Your task to perform on an android device: Open Yahoo.com Image 0: 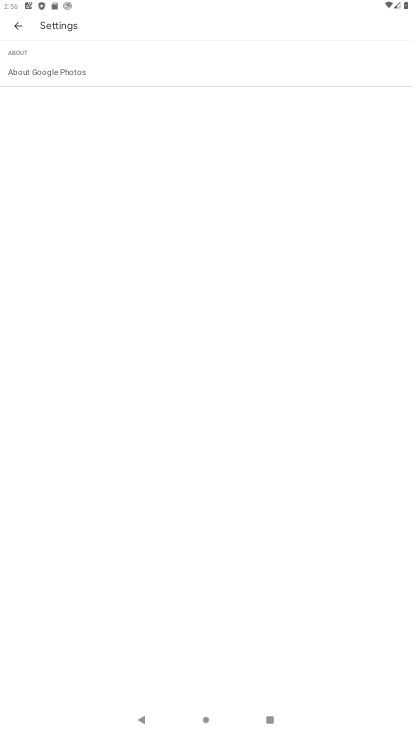
Step 0: press home button
Your task to perform on an android device: Open Yahoo.com Image 1: 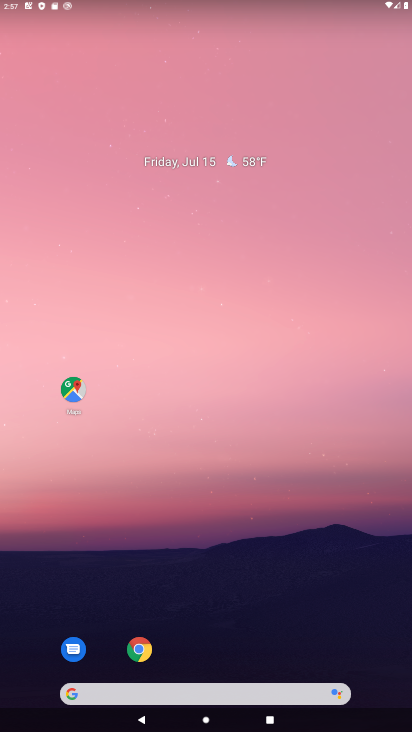
Step 1: click (138, 648)
Your task to perform on an android device: Open Yahoo.com Image 2: 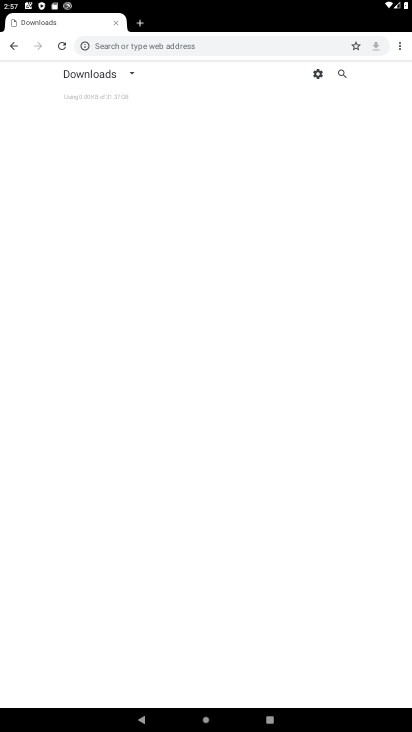
Step 2: click (397, 49)
Your task to perform on an android device: Open Yahoo.com Image 3: 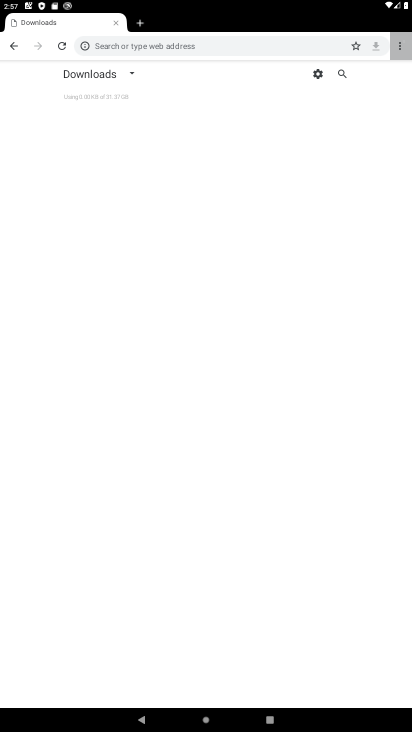
Step 3: click (397, 49)
Your task to perform on an android device: Open Yahoo.com Image 4: 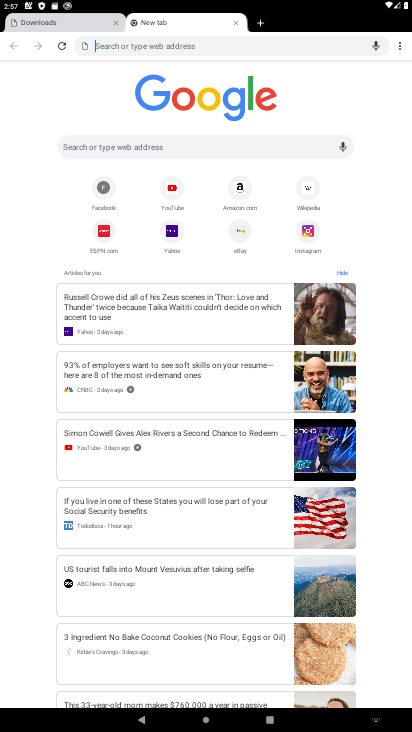
Step 4: click (171, 239)
Your task to perform on an android device: Open Yahoo.com Image 5: 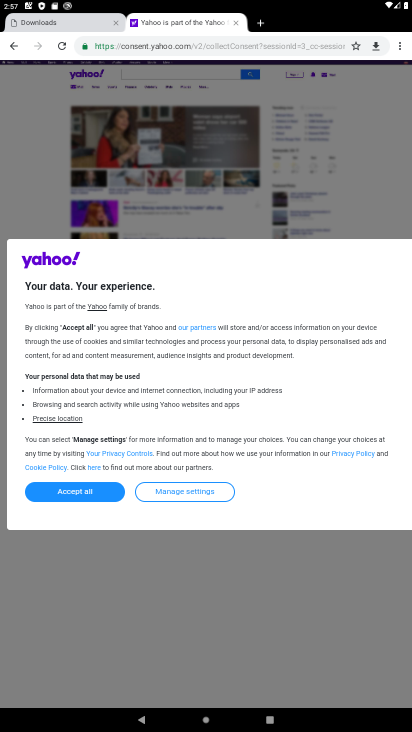
Step 5: click (75, 494)
Your task to perform on an android device: Open Yahoo.com Image 6: 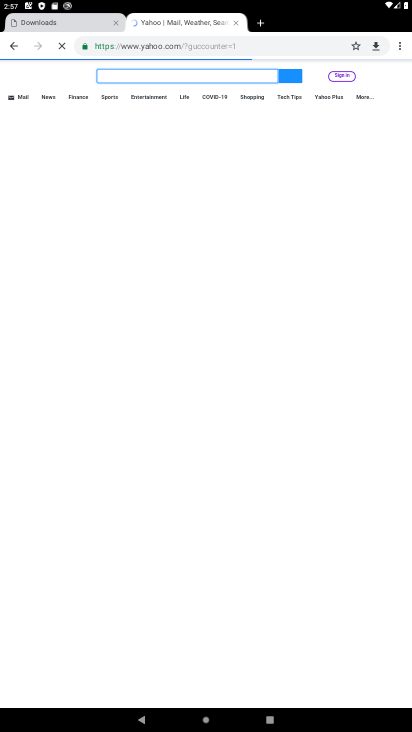
Step 6: click (81, 492)
Your task to perform on an android device: Open Yahoo.com Image 7: 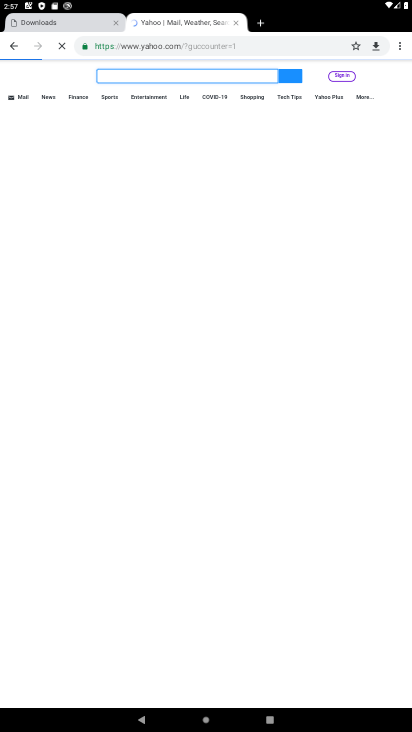
Step 7: task complete